Your task to perform on an android device: Clear all items from cart on target.com. Add "macbook pro 15 inch" to the cart on target.com, then select checkout. Image 0: 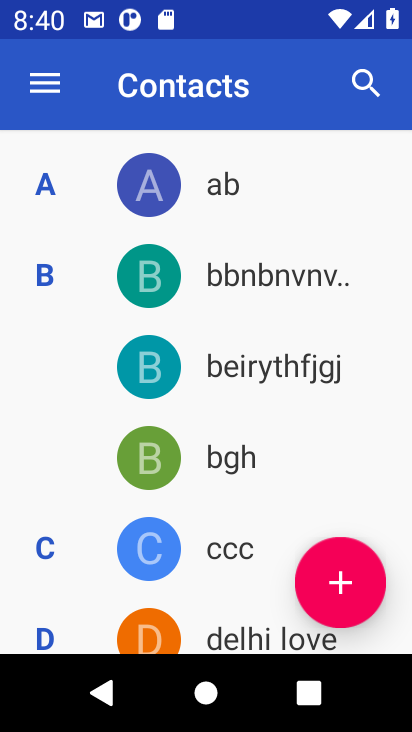
Step 0: press home button
Your task to perform on an android device: Clear all items from cart on target.com. Add "macbook pro 15 inch" to the cart on target.com, then select checkout. Image 1: 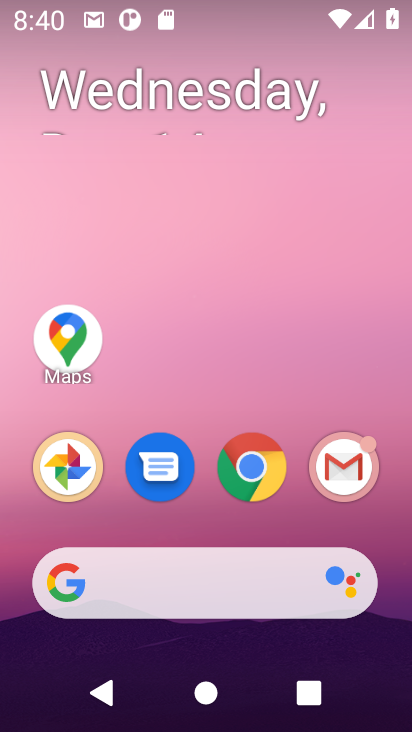
Step 1: click (267, 469)
Your task to perform on an android device: Clear all items from cart on target.com. Add "macbook pro 15 inch" to the cart on target.com, then select checkout. Image 2: 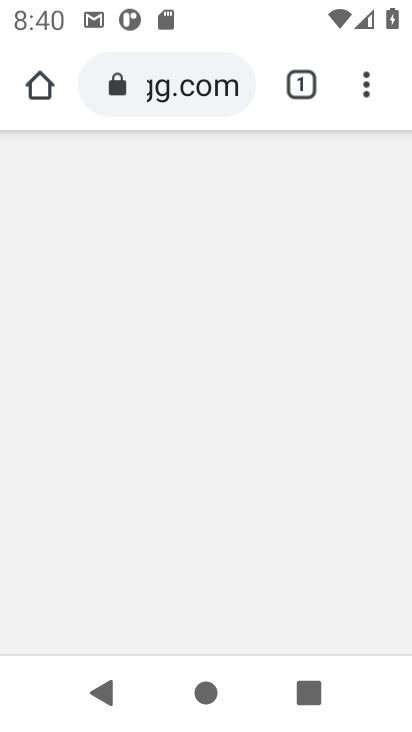
Step 2: click (163, 79)
Your task to perform on an android device: Clear all items from cart on target.com. Add "macbook pro 15 inch" to the cart on target.com, then select checkout. Image 3: 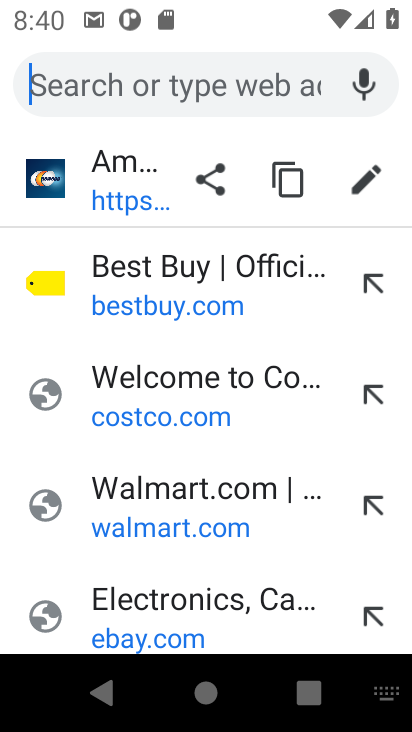
Step 3: type "target"
Your task to perform on an android device: Clear all items from cart on target.com. Add "macbook pro 15 inch" to the cart on target.com, then select checkout. Image 4: 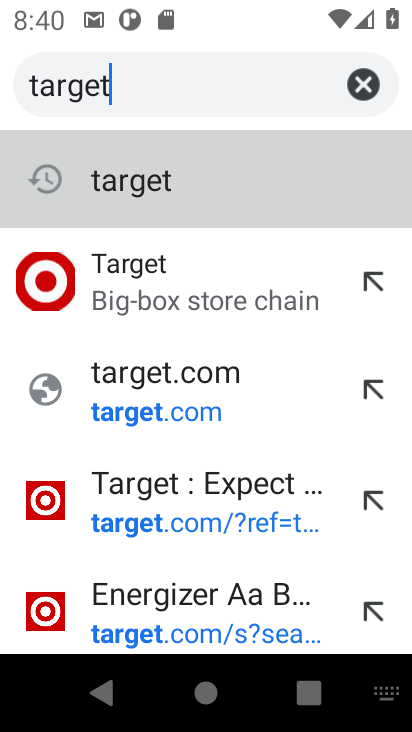
Step 4: click (143, 288)
Your task to perform on an android device: Clear all items from cart on target.com. Add "macbook pro 15 inch" to the cart on target.com, then select checkout. Image 5: 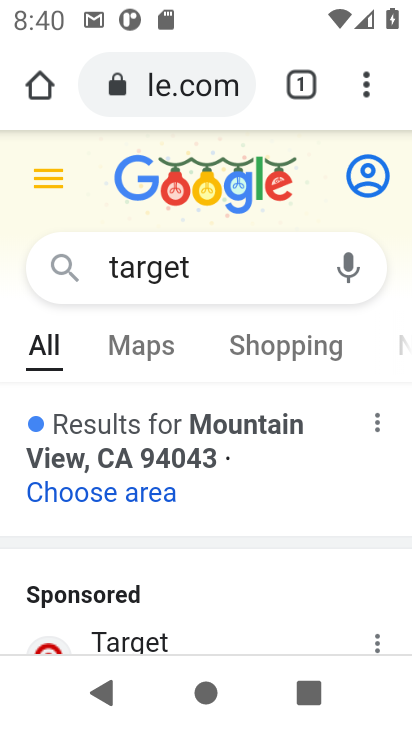
Step 5: click (147, 637)
Your task to perform on an android device: Clear all items from cart on target.com. Add "macbook pro 15 inch" to the cart on target.com, then select checkout. Image 6: 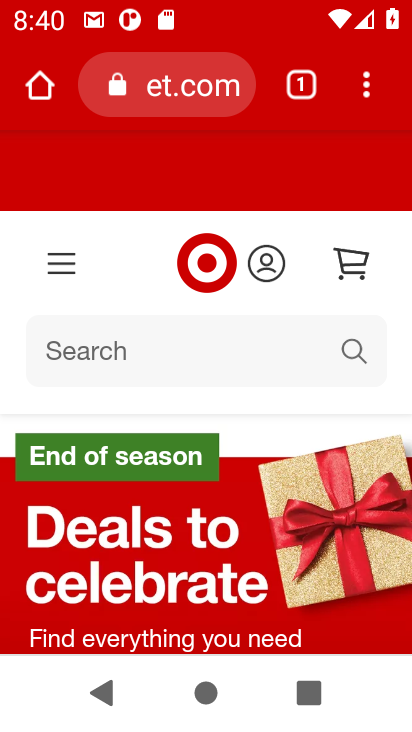
Step 6: click (184, 343)
Your task to perform on an android device: Clear all items from cart on target.com. Add "macbook pro 15 inch" to the cart on target.com, then select checkout. Image 7: 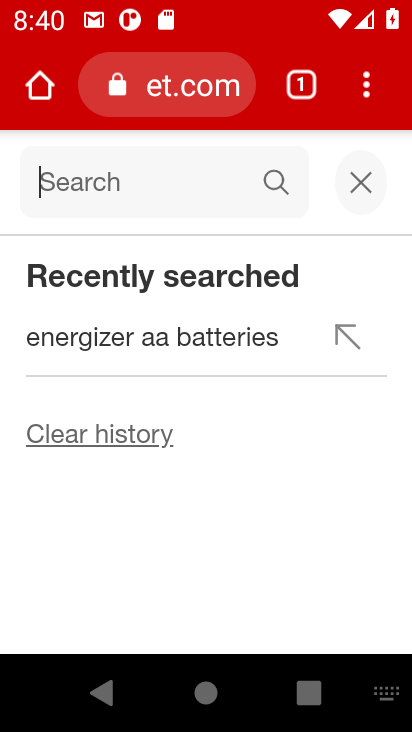
Step 7: type "macbook pro 1"
Your task to perform on an android device: Clear all items from cart on target.com. Add "macbook pro 15 inch" to the cart on target.com, then select checkout. Image 8: 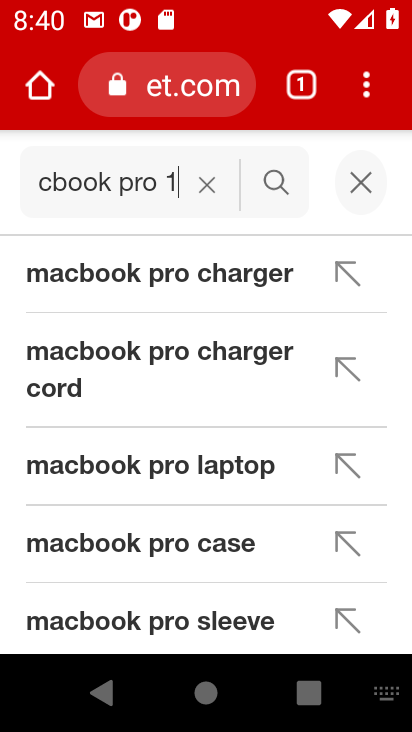
Step 8: click (177, 276)
Your task to perform on an android device: Clear all items from cart on target.com. Add "macbook pro 15 inch" to the cart on target.com, then select checkout. Image 9: 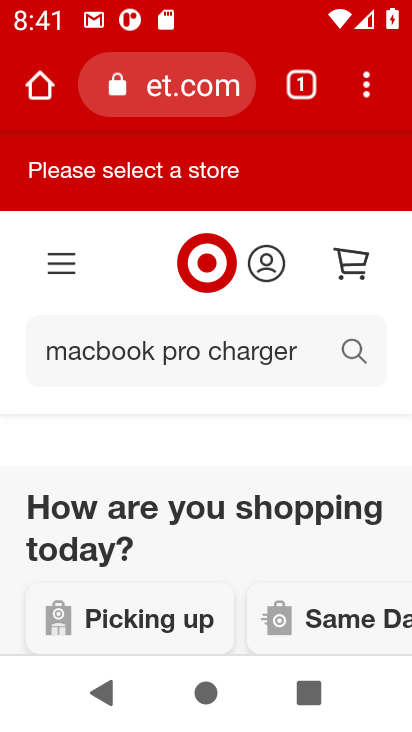
Step 9: task complete